Your task to perform on an android device: toggle priority inbox in the gmail app Image 0: 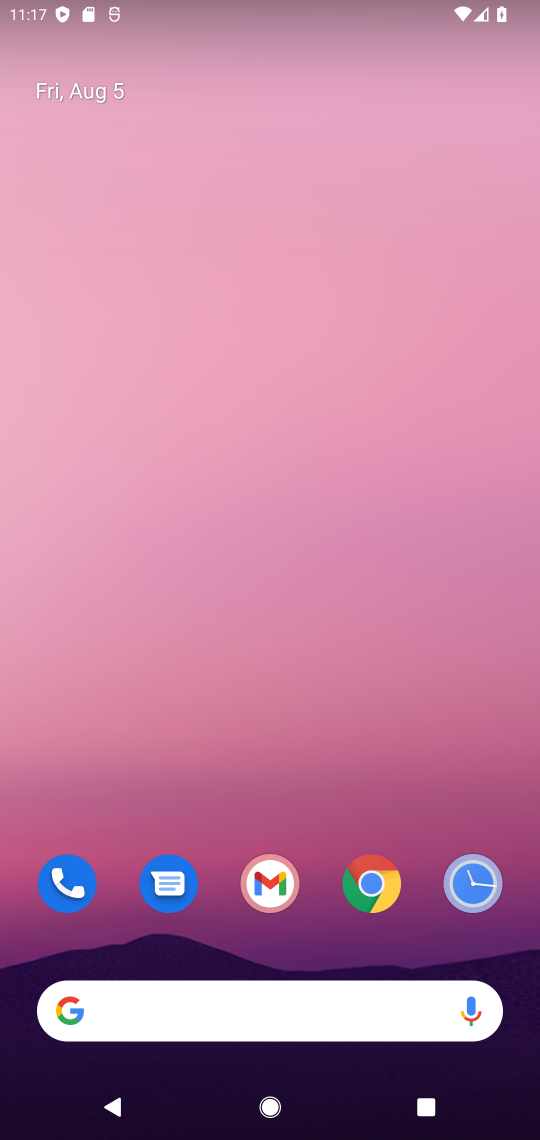
Step 0: click (262, 894)
Your task to perform on an android device: toggle priority inbox in the gmail app Image 1: 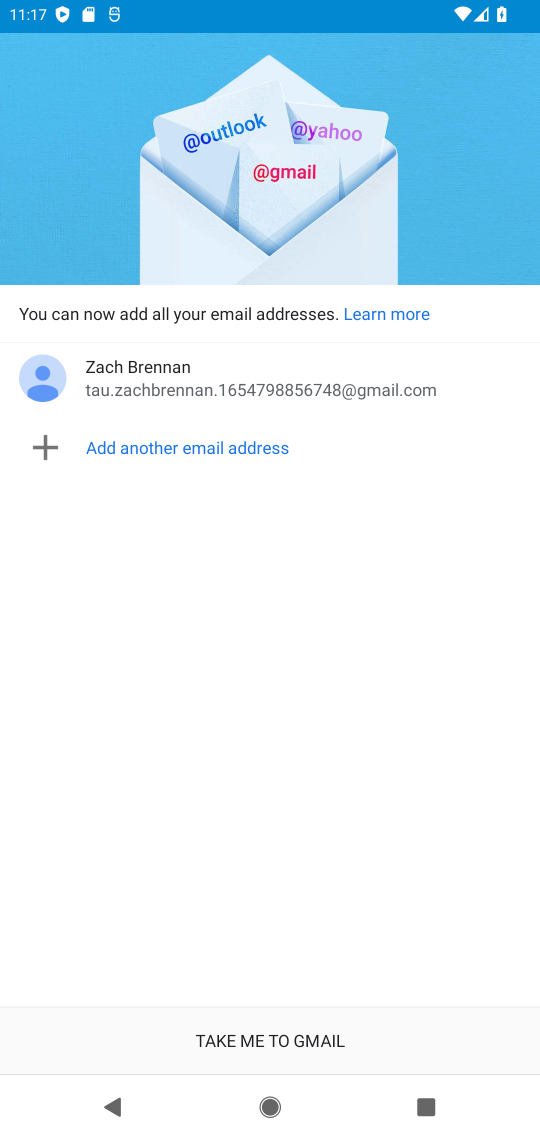
Step 1: click (315, 1039)
Your task to perform on an android device: toggle priority inbox in the gmail app Image 2: 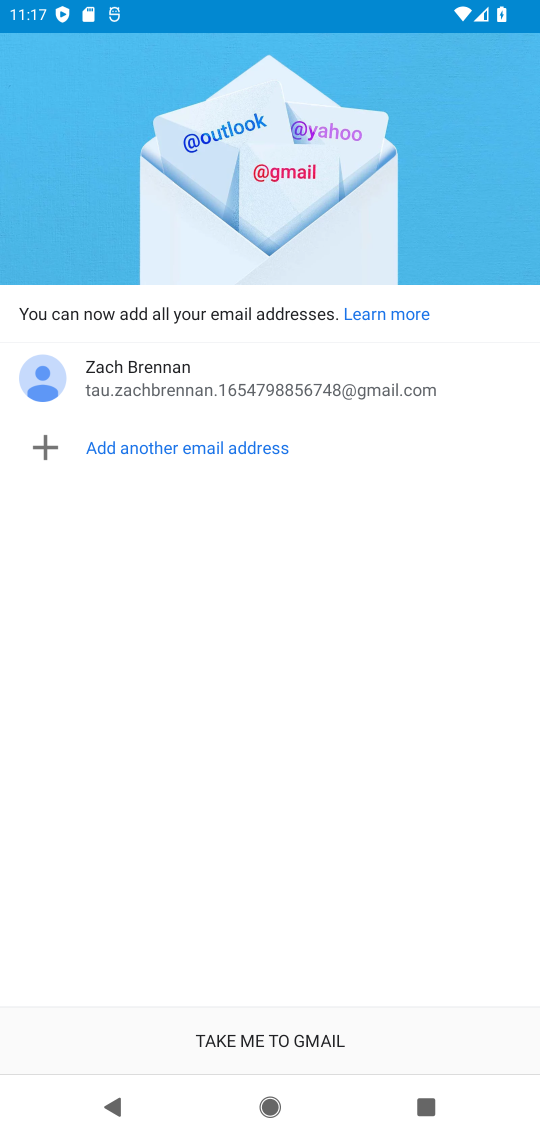
Step 2: click (315, 1039)
Your task to perform on an android device: toggle priority inbox in the gmail app Image 3: 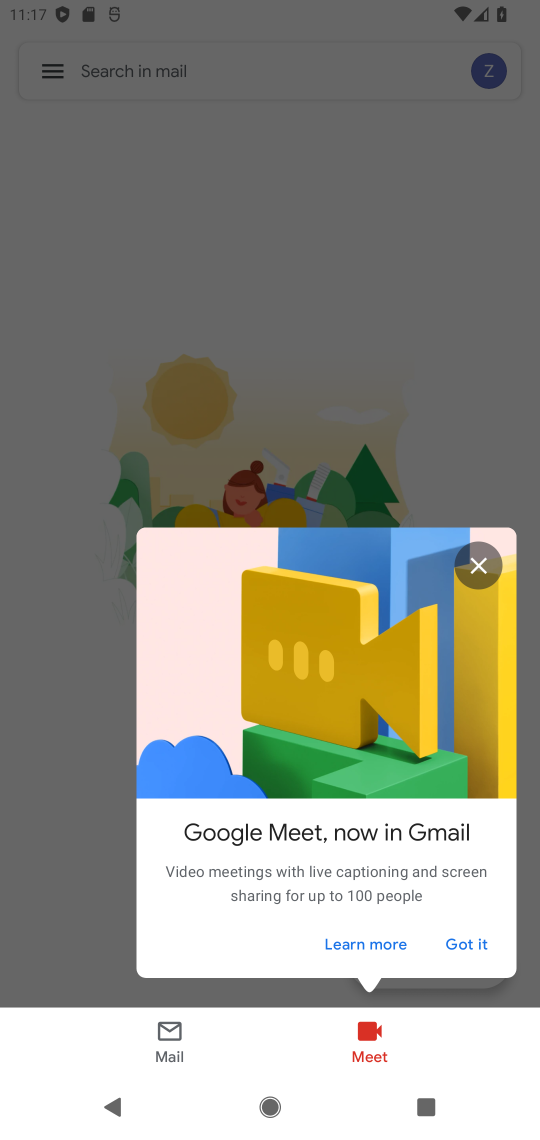
Step 3: click (471, 940)
Your task to perform on an android device: toggle priority inbox in the gmail app Image 4: 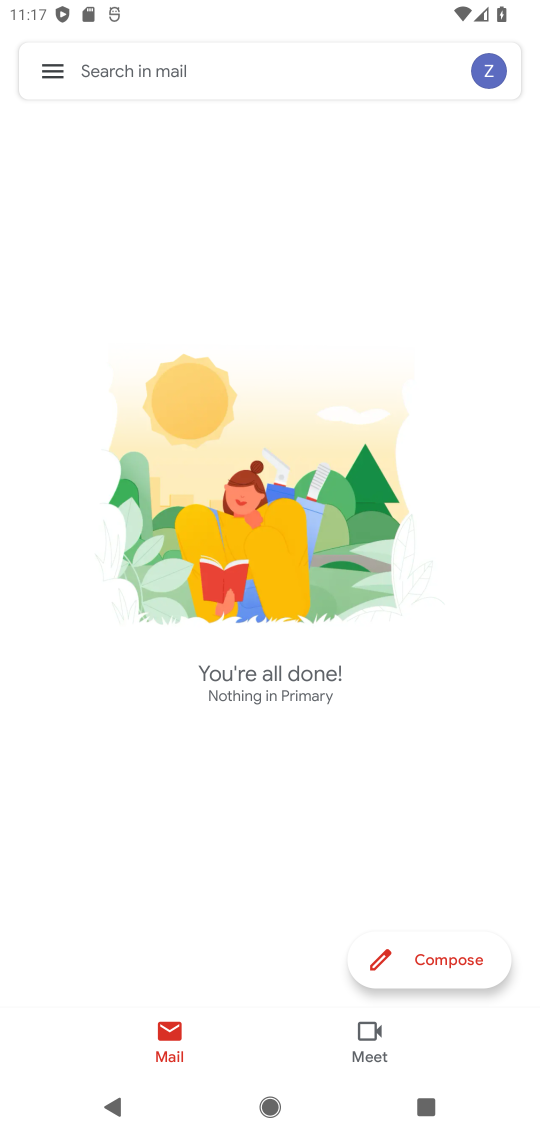
Step 4: click (57, 72)
Your task to perform on an android device: toggle priority inbox in the gmail app Image 5: 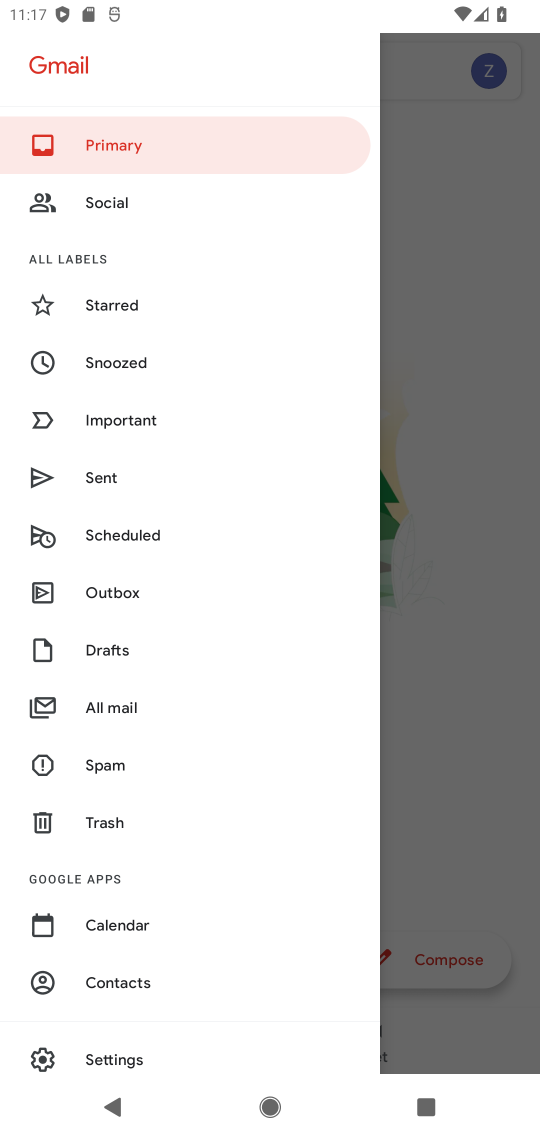
Step 5: click (120, 147)
Your task to perform on an android device: toggle priority inbox in the gmail app Image 6: 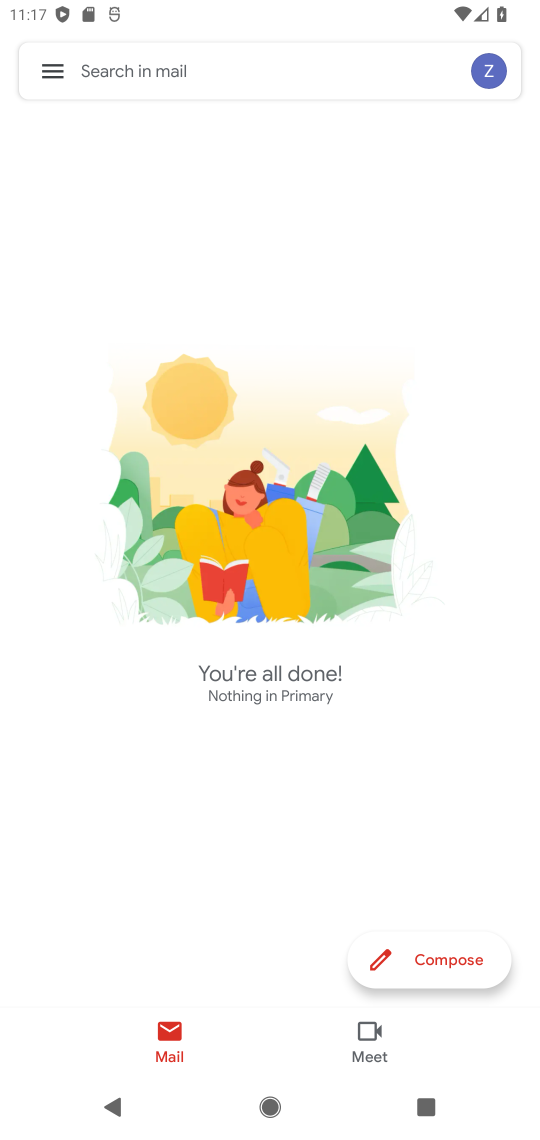
Step 6: click (43, 76)
Your task to perform on an android device: toggle priority inbox in the gmail app Image 7: 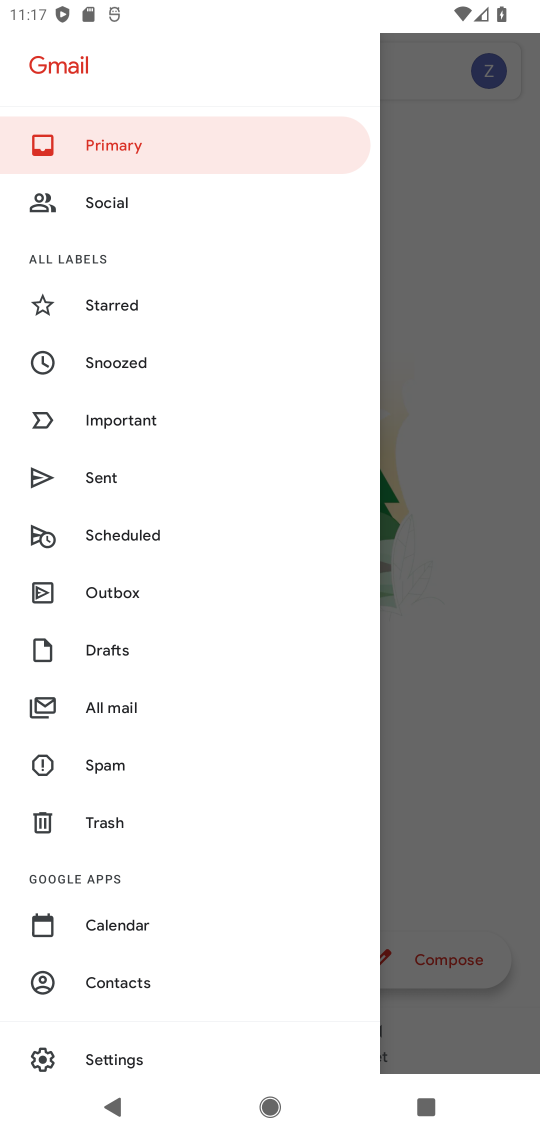
Step 7: click (489, 745)
Your task to perform on an android device: toggle priority inbox in the gmail app Image 8: 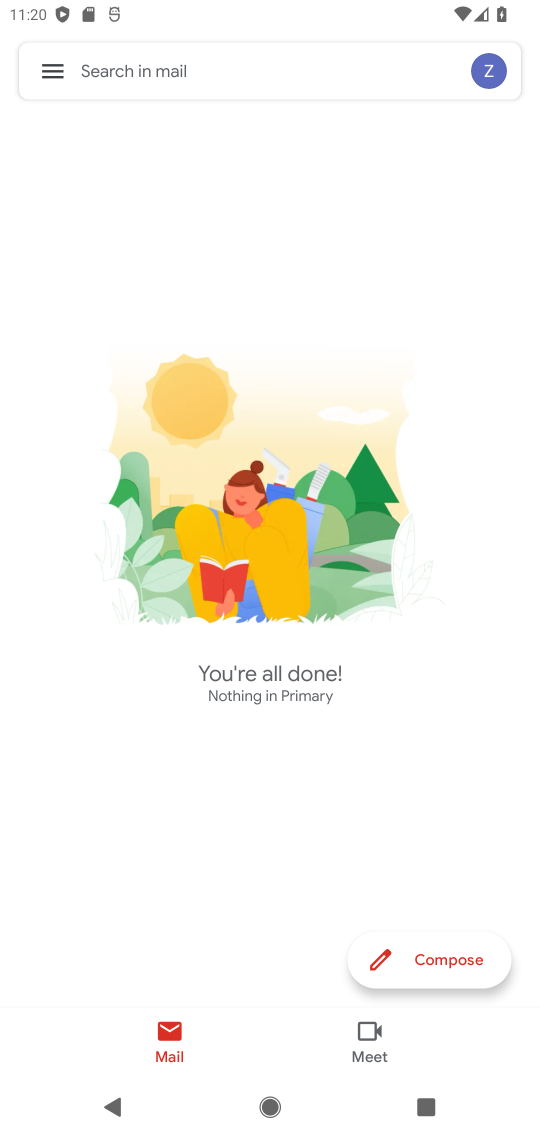
Step 8: task complete